Your task to perform on an android device: set the timer Image 0: 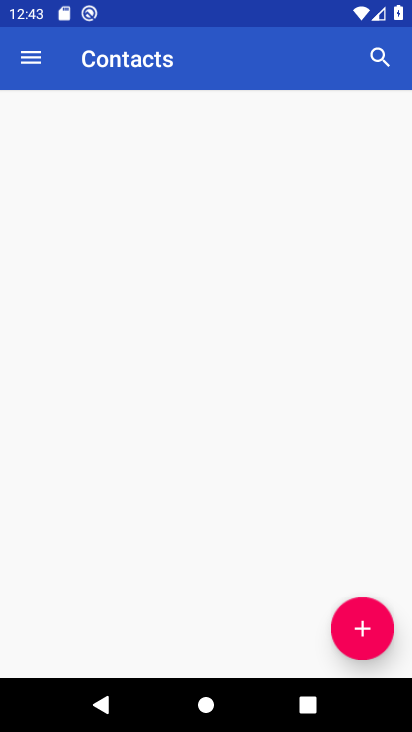
Step 0: press home button
Your task to perform on an android device: set the timer Image 1: 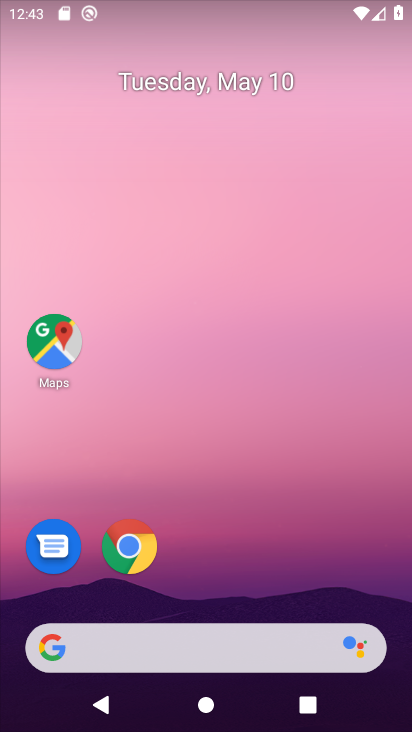
Step 1: drag from (241, 557) to (226, 78)
Your task to perform on an android device: set the timer Image 2: 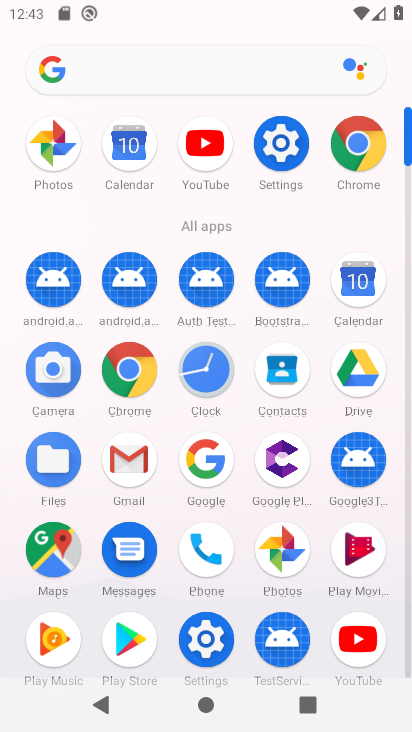
Step 2: click (208, 385)
Your task to perform on an android device: set the timer Image 3: 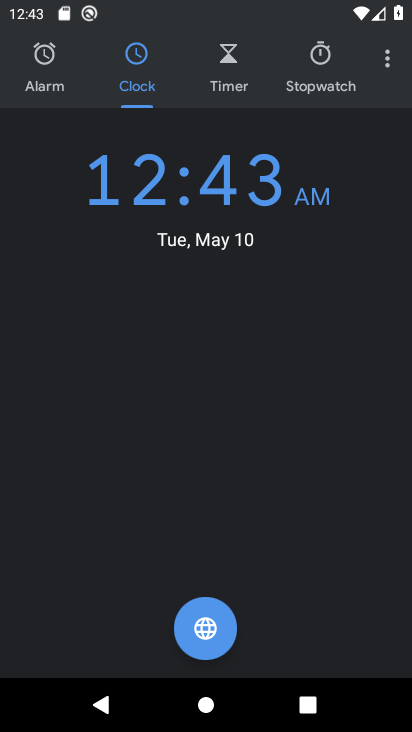
Step 3: click (239, 88)
Your task to perform on an android device: set the timer Image 4: 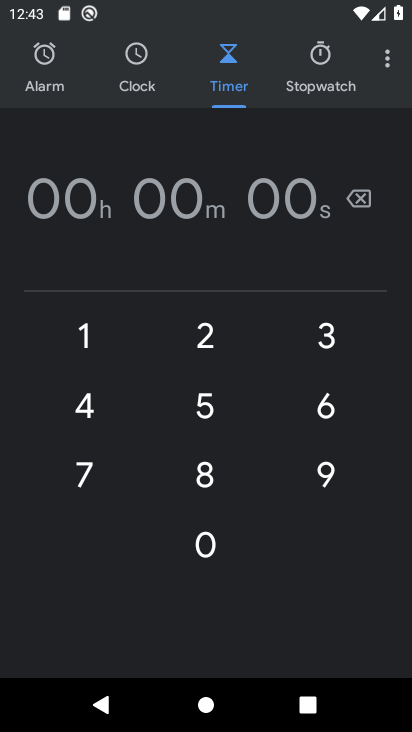
Step 4: click (83, 462)
Your task to perform on an android device: set the timer Image 5: 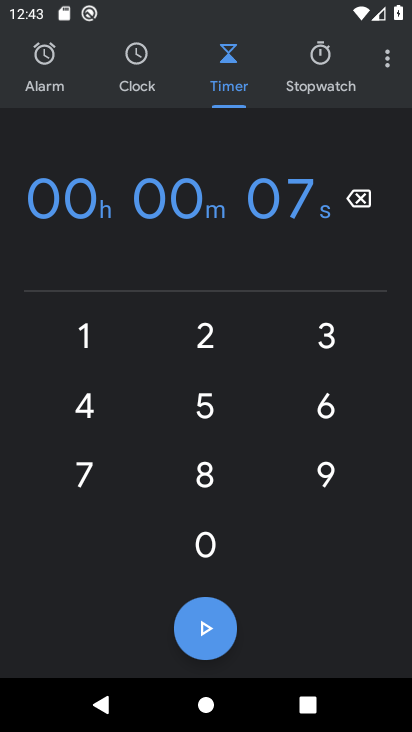
Step 5: click (211, 616)
Your task to perform on an android device: set the timer Image 6: 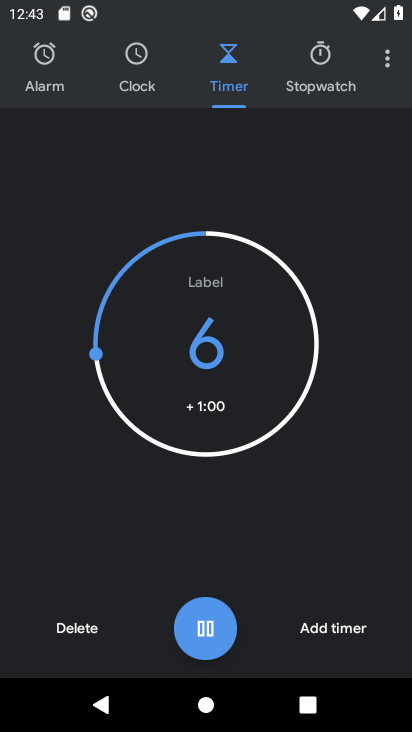
Step 6: task complete